Your task to perform on an android device: toggle notifications settings in the gmail app Image 0: 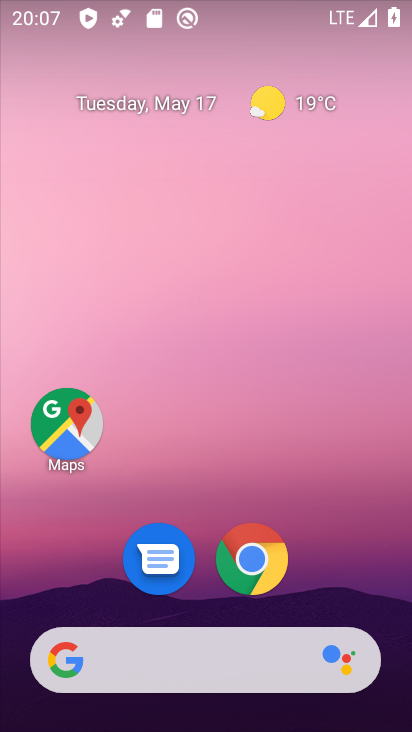
Step 0: drag from (193, 603) to (204, 180)
Your task to perform on an android device: toggle notifications settings in the gmail app Image 1: 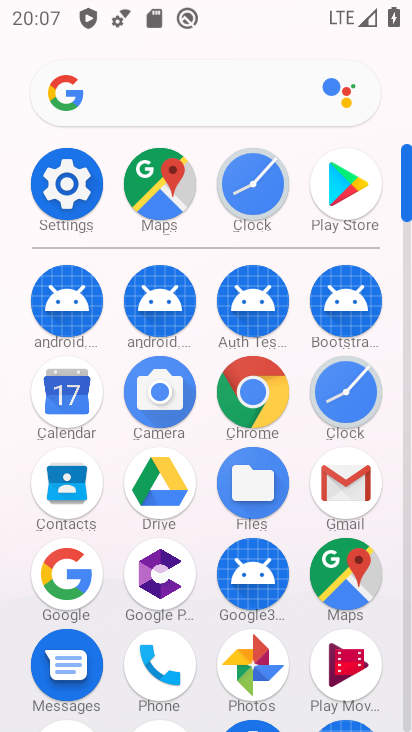
Step 1: click (327, 477)
Your task to perform on an android device: toggle notifications settings in the gmail app Image 2: 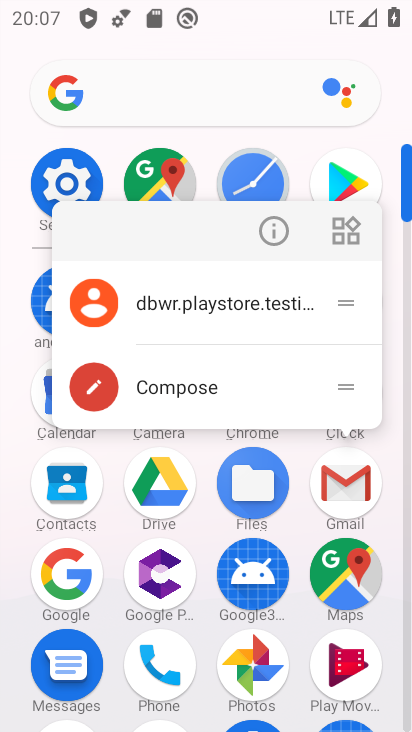
Step 2: click (196, 310)
Your task to perform on an android device: toggle notifications settings in the gmail app Image 3: 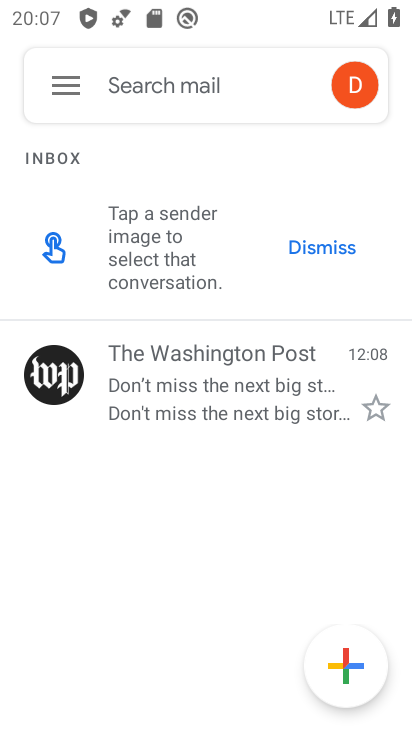
Step 3: click (73, 94)
Your task to perform on an android device: toggle notifications settings in the gmail app Image 4: 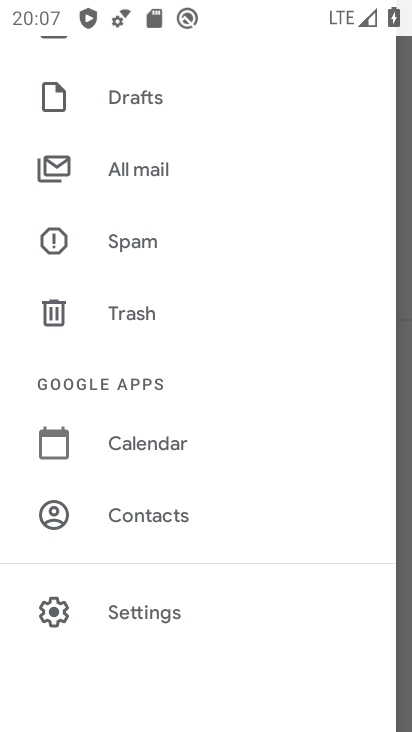
Step 4: click (105, 597)
Your task to perform on an android device: toggle notifications settings in the gmail app Image 5: 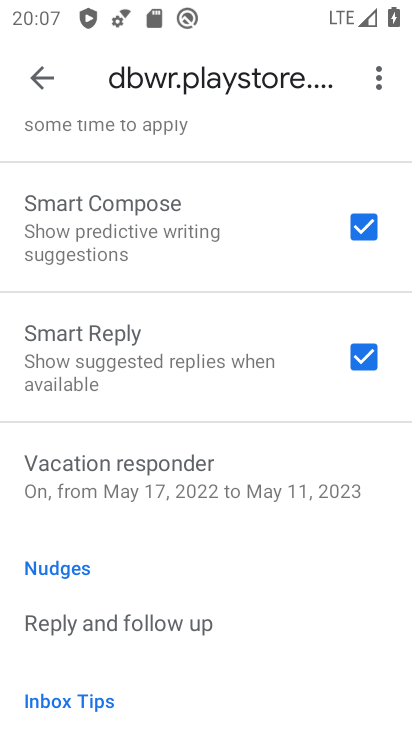
Step 5: drag from (228, 633) to (289, 285)
Your task to perform on an android device: toggle notifications settings in the gmail app Image 6: 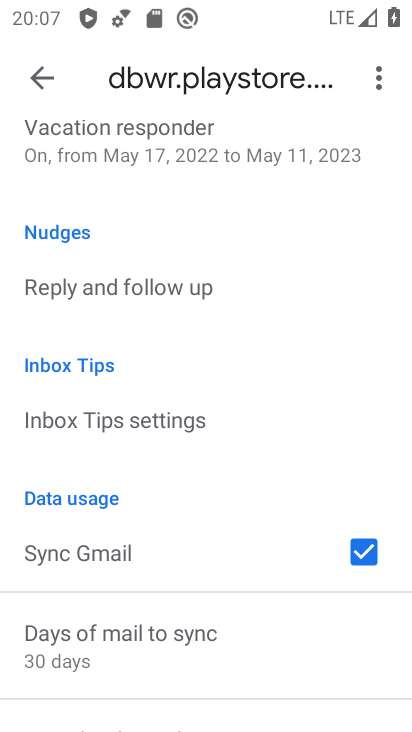
Step 6: drag from (160, 574) to (245, 239)
Your task to perform on an android device: toggle notifications settings in the gmail app Image 7: 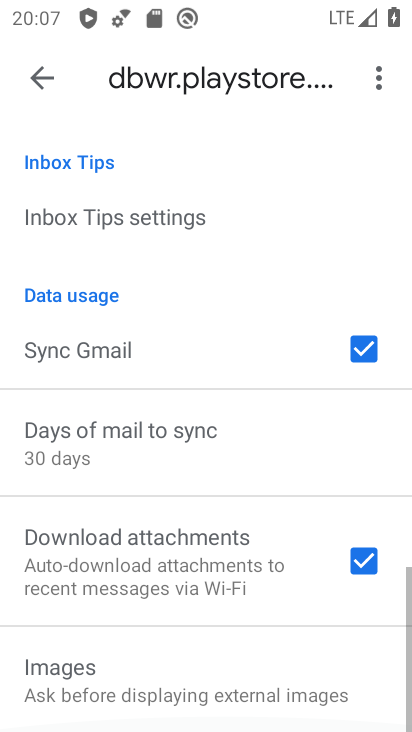
Step 7: drag from (253, 188) to (205, 730)
Your task to perform on an android device: toggle notifications settings in the gmail app Image 8: 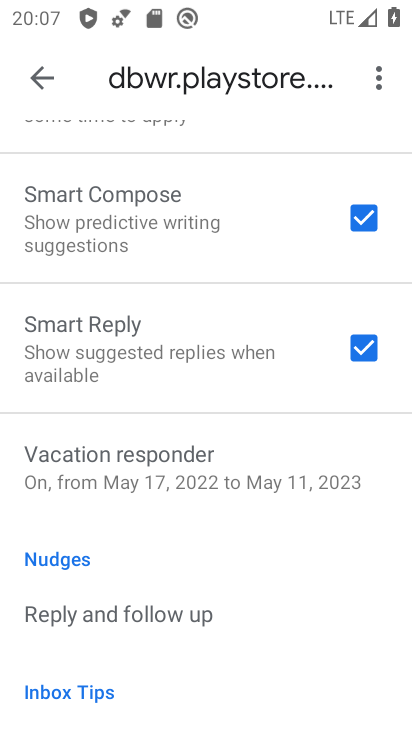
Step 8: drag from (292, 215) to (188, 711)
Your task to perform on an android device: toggle notifications settings in the gmail app Image 9: 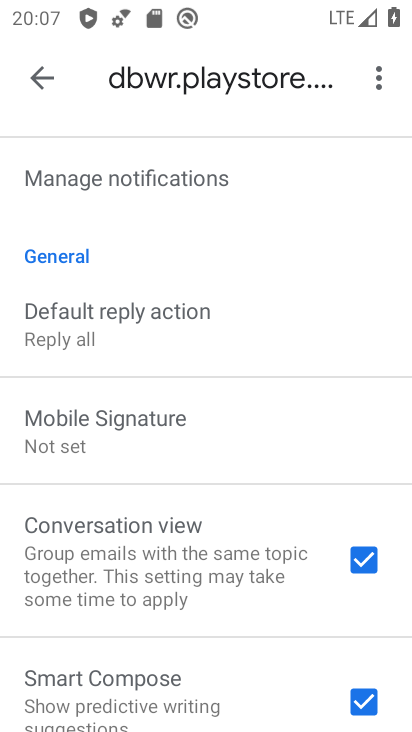
Step 9: click (150, 197)
Your task to perform on an android device: toggle notifications settings in the gmail app Image 10: 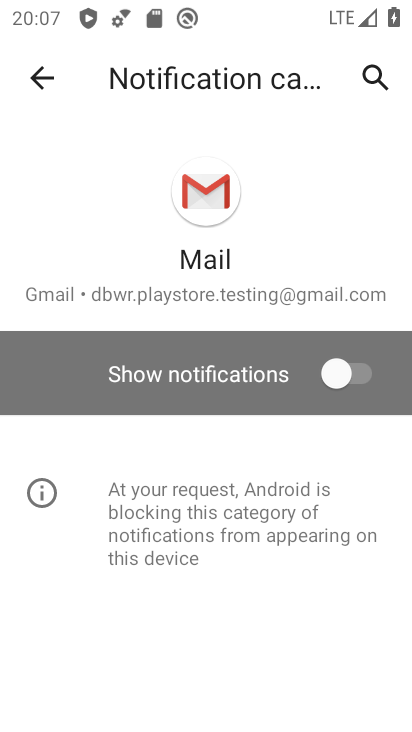
Step 10: click (333, 354)
Your task to perform on an android device: toggle notifications settings in the gmail app Image 11: 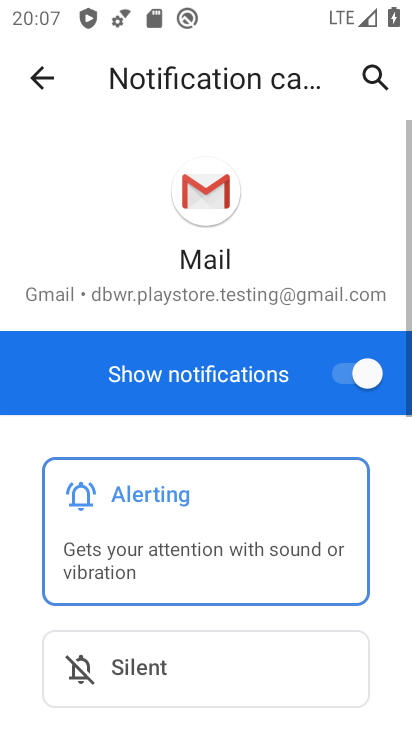
Step 11: task complete